Your task to perform on an android device: turn off airplane mode Image 0: 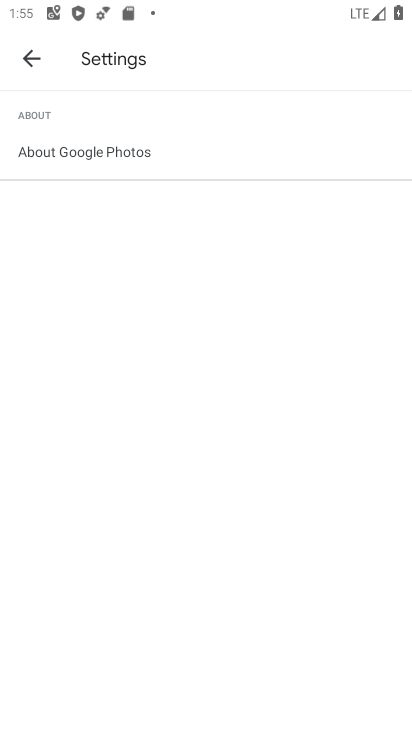
Step 0: press home button
Your task to perform on an android device: turn off airplane mode Image 1: 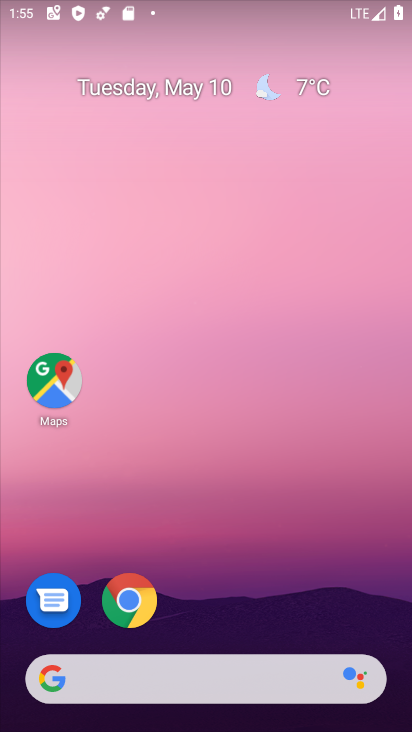
Step 1: drag from (194, 680) to (272, 112)
Your task to perform on an android device: turn off airplane mode Image 2: 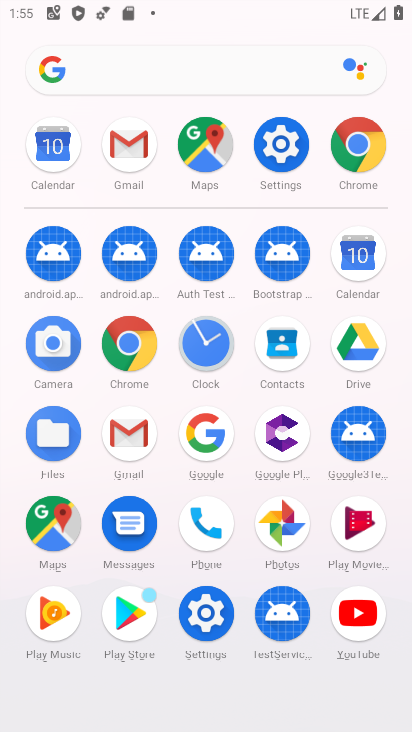
Step 2: click (279, 145)
Your task to perform on an android device: turn off airplane mode Image 3: 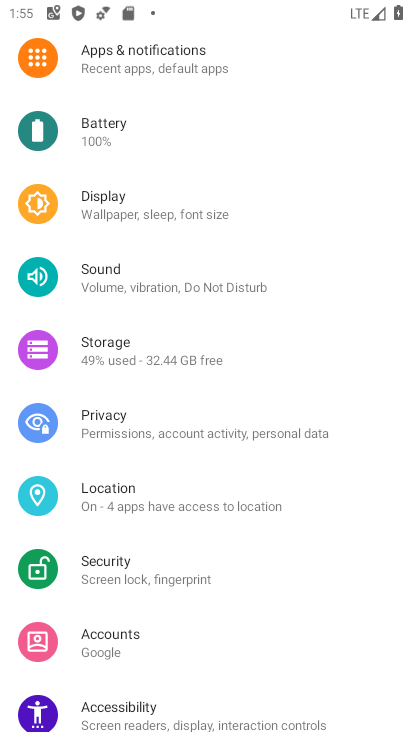
Step 3: drag from (238, 92) to (208, 468)
Your task to perform on an android device: turn off airplane mode Image 4: 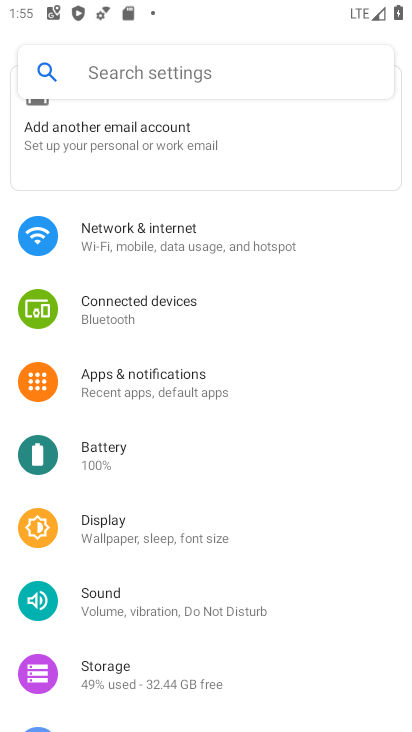
Step 4: click (153, 246)
Your task to perform on an android device: turn off airplane mode Image 5: 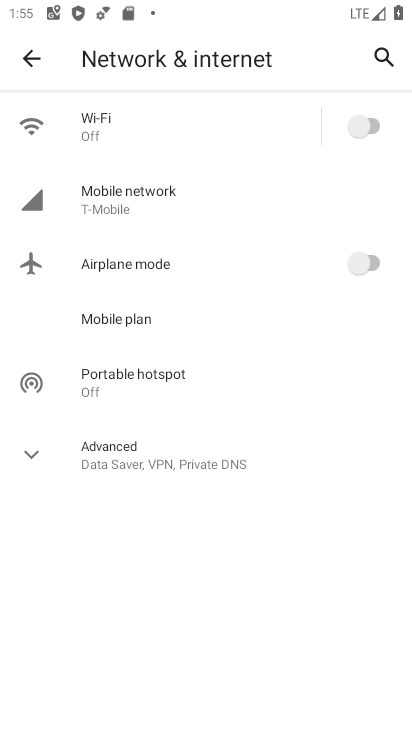
Step 5: task complete